Your task to perform on an android device: Turn on the flashlight Image 0: 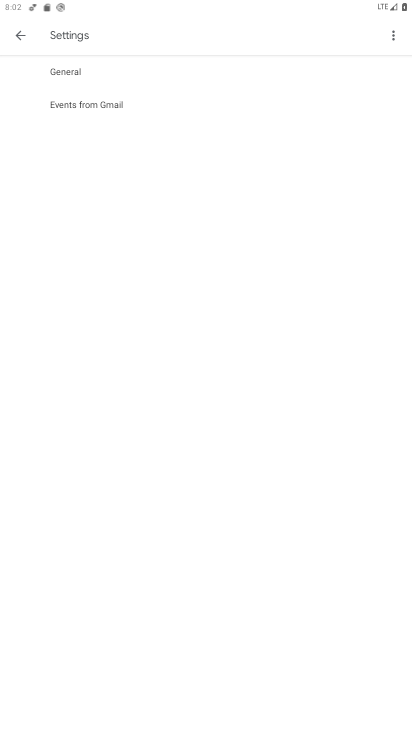
Step 0: press home button
Your task to perform on an android device: Turn on the flashlight Image 1: 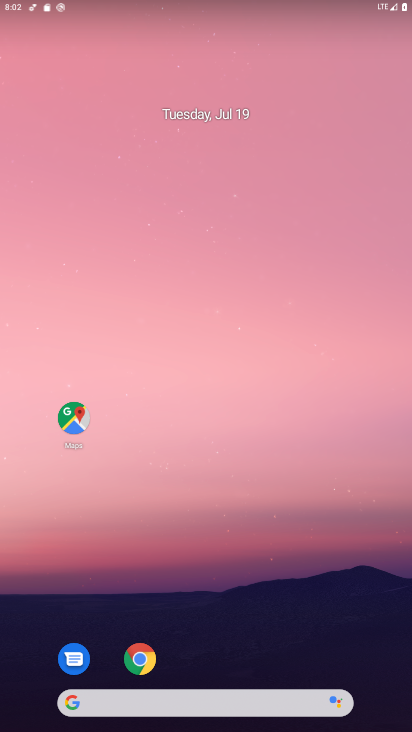
Step 1: drag from (237, 623) to (231, 22)
Your task to perform on an android device: Turn on the flashlight Image 2: 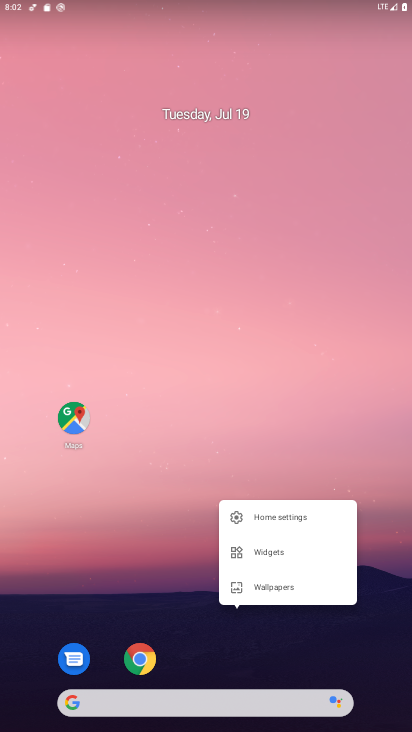
Step 2: drag from (190, 646) to (73, 4)
Your task to perform on an android device: Turn on the flashlight Image 3: 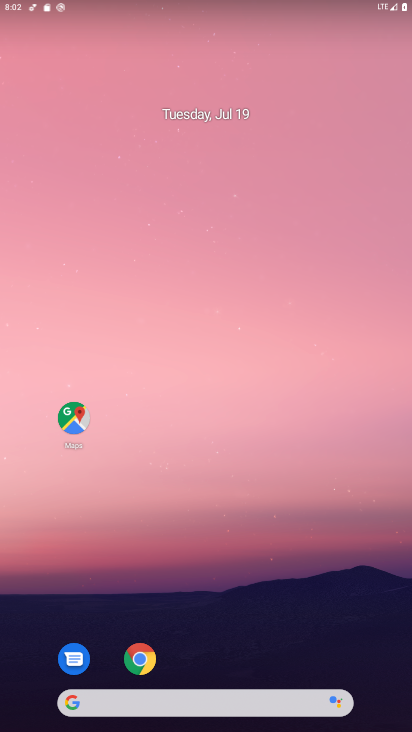
Step 3: drag from (251, 642) to (287, 1)
Your task to perform on an android device: Turn on the flashlight Image 4: 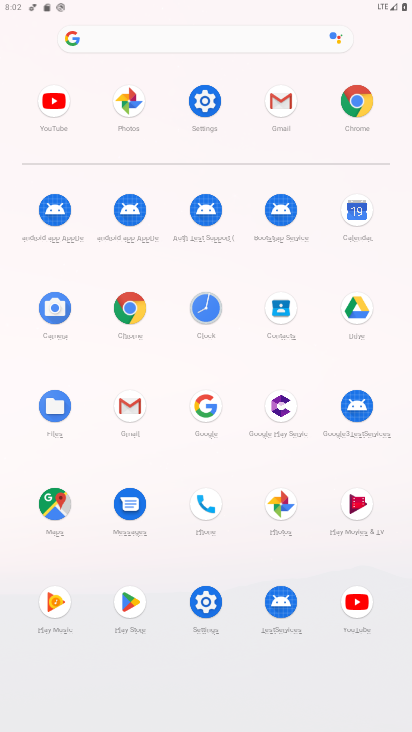
Step 4: click (205, 610)
Your task to perform on an android device: Turn on the flashlight Image 5: 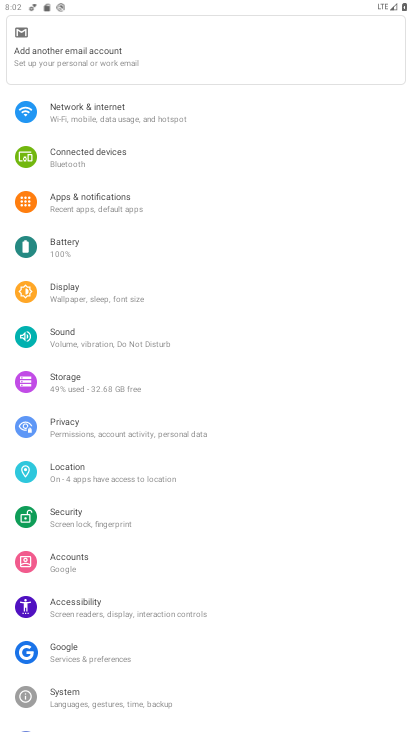
Step 5: drag from (166, 175) to (180, 651)
Your task to perform on an android device: Turn on the flashlight Image 6: 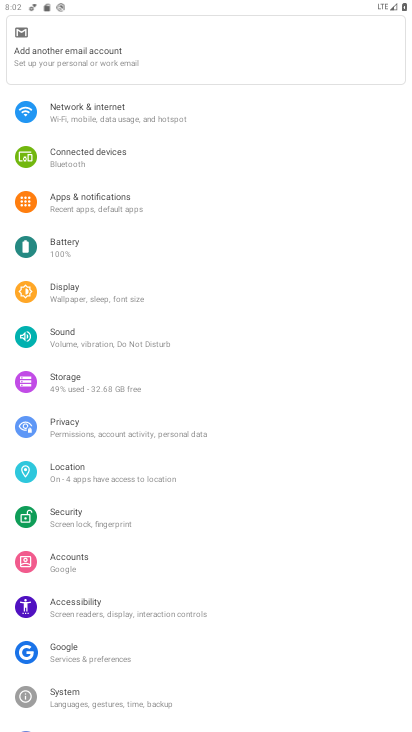
Step 6: drag from (247, 161) to (287, 641)
Your task to perform on an android device: Turn on the flashlight Image 7: 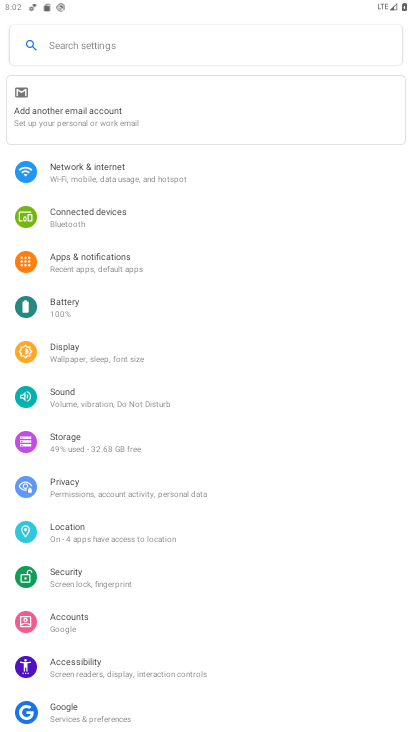
Step 7: click (131, 47)
Your task to perform on an android device: Turn on the flashlight Image 8: 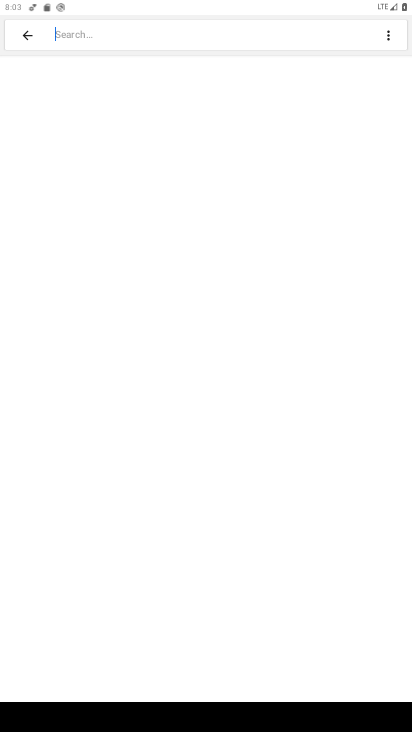
Step 8: type "flashlight"
Your task to perform on an android device: Turn on the flashlight Image 9: 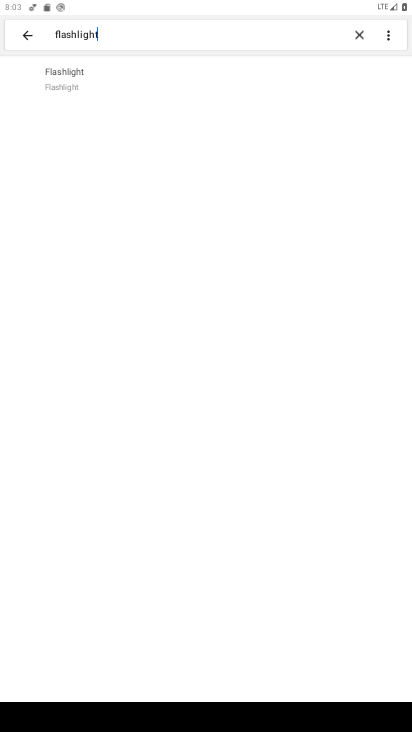
Step 9: click (86, 85)
Your task to perform on an android device: Turn on the flashlight Image 10: 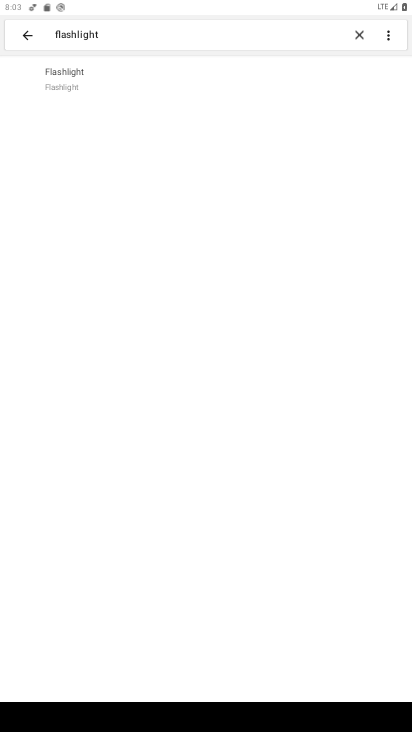
Step 10: click (80, 67)
Your task to perform on an android device: Turn on the flashlight Image 11: 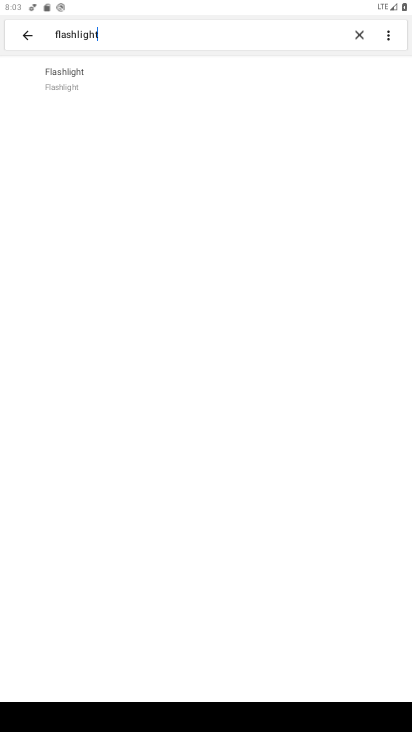
Step 11: task complete